Your task to perform on an android device: see sites visited before in the chrome app Image 0: 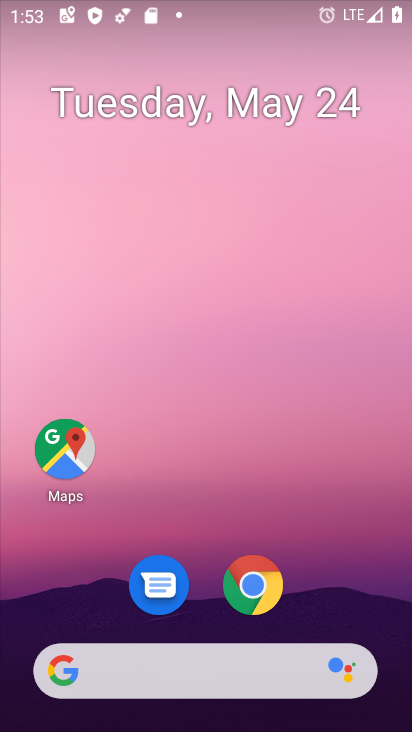
Step 0: drag from (261, 524) to (267, 239)
Your task to perform on an android device: see sites visited before in the chrome app Image 1: 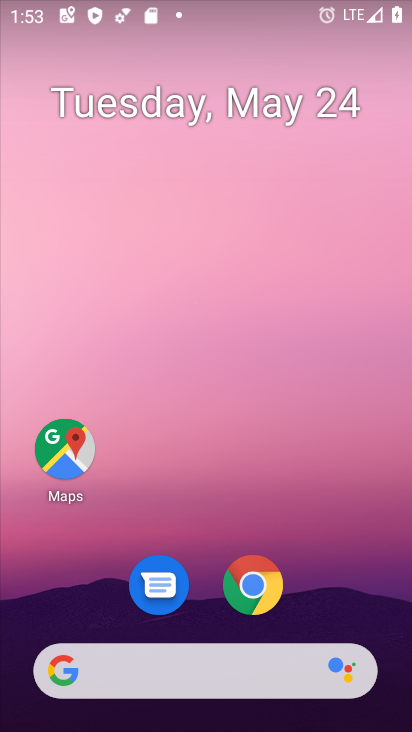
Step 1: click (246, 579)
Your task to perform on an android device: see sites visited before in the chrome app Image 2: 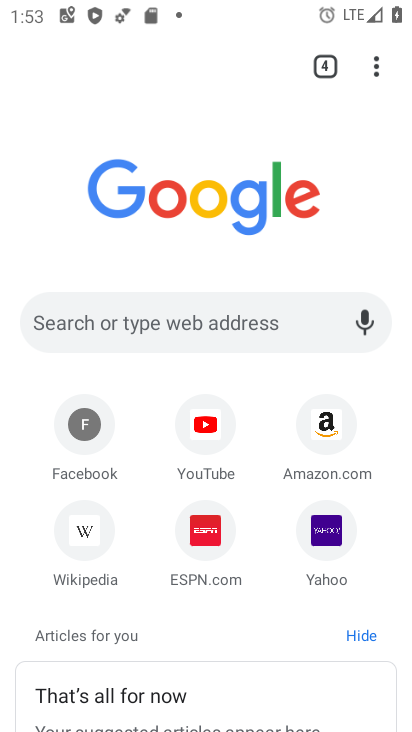
Step 2: click (375, 66)
Your task to perform on an android device: see sites visited before in the chrome app Image 3: 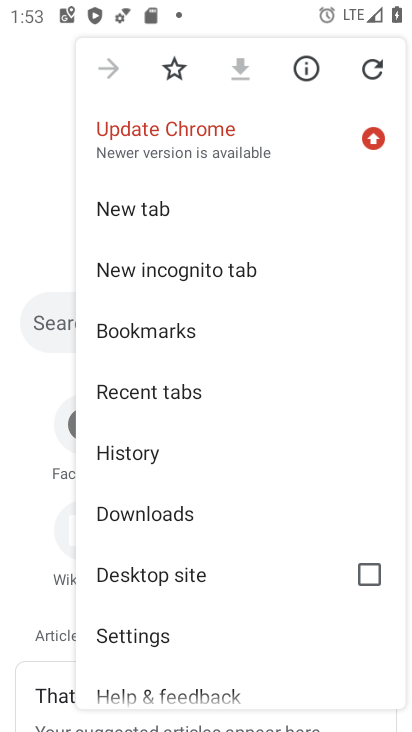
Step 3: click (190, 382)
Your task to perform on an android device: see sites visited before in the chrome app Image 4: 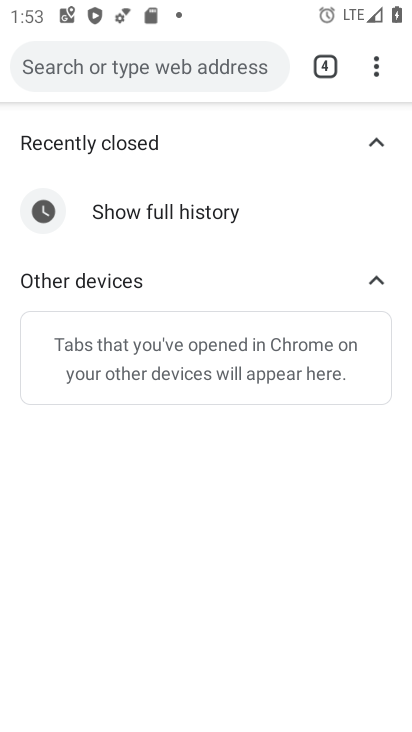
Step 4: task complete